Your task to perform on an android device: Open calendar and show me the second week of next month Image 0: 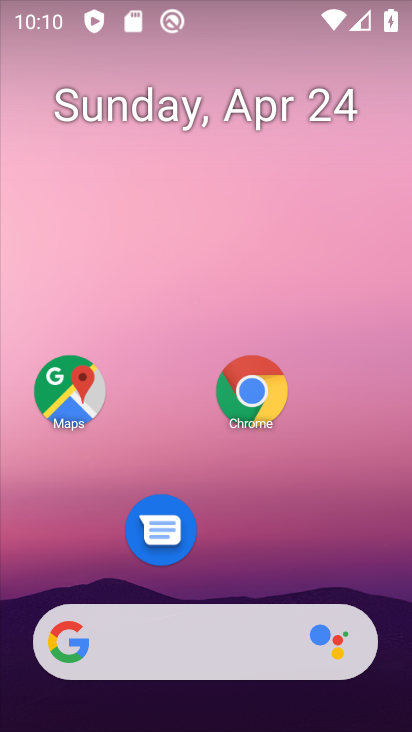
Step 0: click (144, 104)
Your task to perform on an android device: Open calendar and show me the second week of next month Image 1: 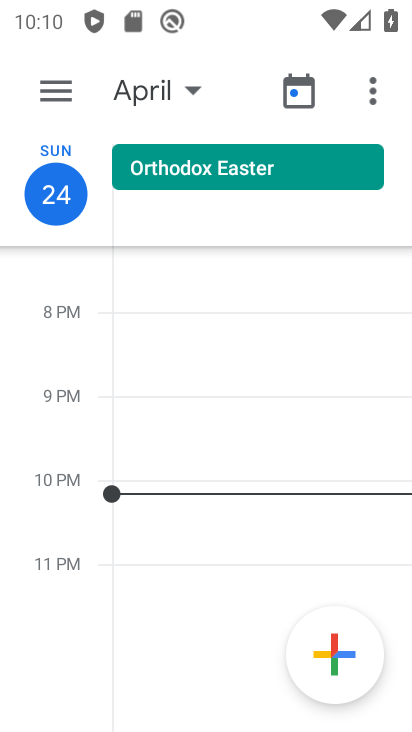
Step 1: click (172, 86)
Your task to perform on an android device: Open calendar and show me the second week of next month Image 2: 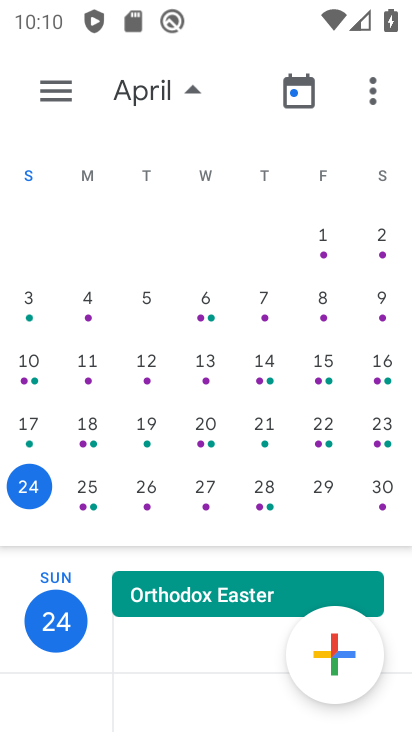
Step 2: drag from (384, 340) to (20, 566)
Your task to perform on an android device: Open calendar and show me the second week of next month Image 3: 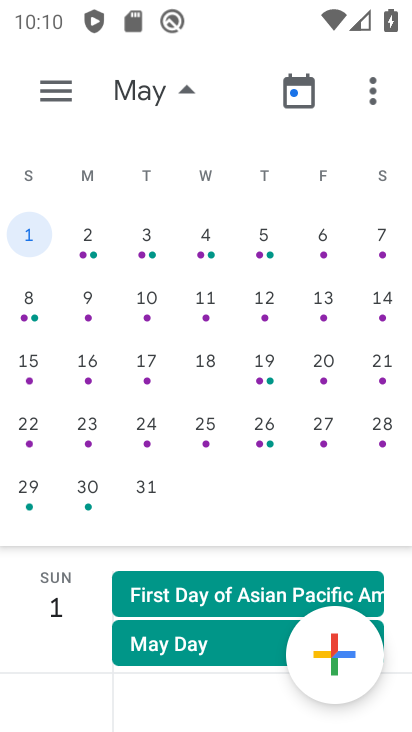
Step 3: drag from (353, 508) to (55, 445)
Your task to perform on an android device: Open calendar and show me the second week of next month Image 4: 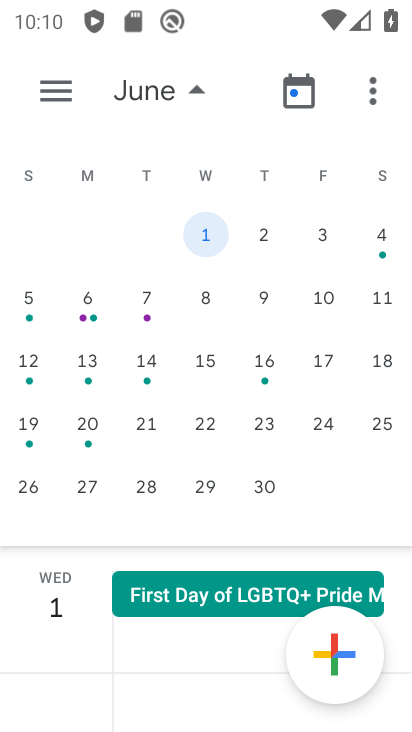
Step 4: drag from (55, 445) to (372, 468)
Your task to perform on an android device: Open calendar and show me the second week of next month Image 5: 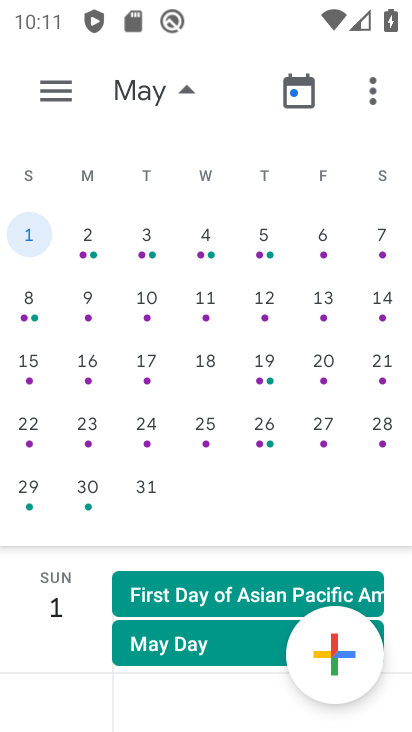
Step 5: click (156, 300)
Your task to perform on an android device: Open calendar and show me the second week of next month Image 6: 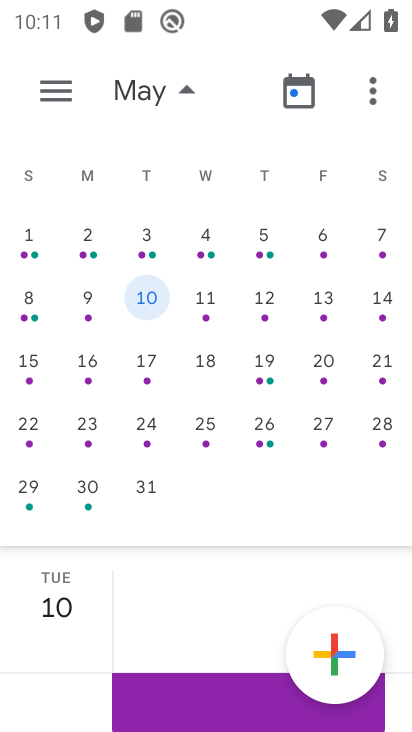
Step 6: task complete